Your task to perform on an android device: View the shopping cart on newegg. Image 0: 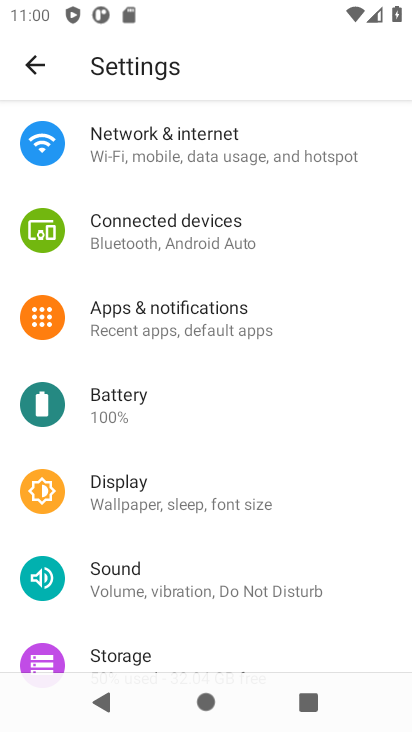
Step 0: press home button
Your task to perform on an android device: View the shopping cart on newegg. Image 1: 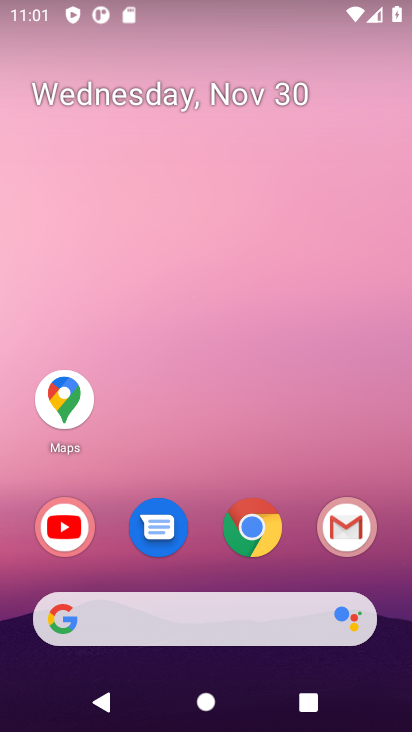
Step 1: click (262, 522)
Your task to perform on an android device: View the shopping cart on newegg. Image 2: 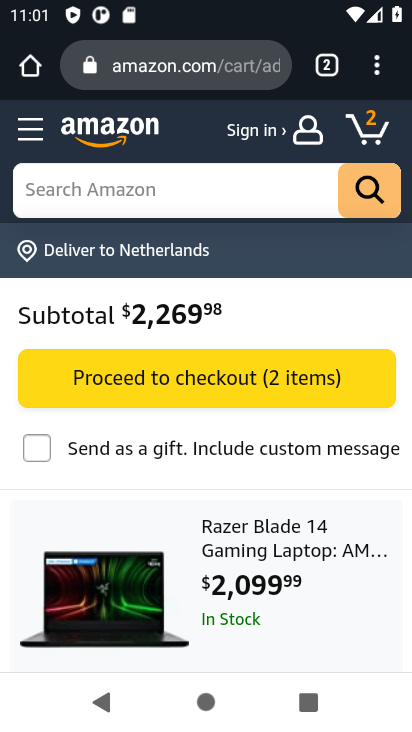
Step 2: click (188, 68)
Your task to perform on an android device: View the shopping cart on newegg. Image 3: 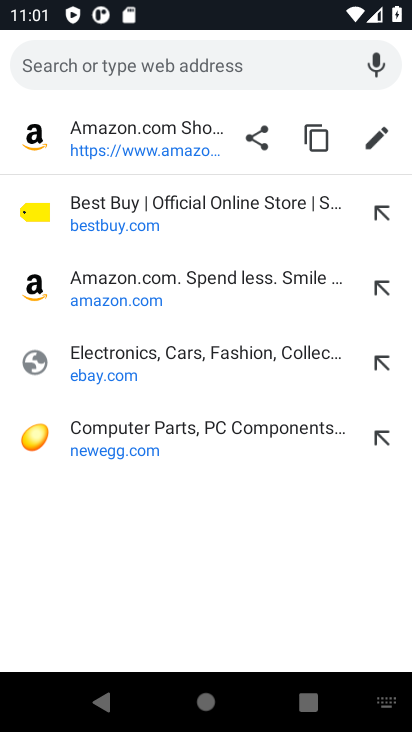
Step 3: click (101, 441)
Your task to perform on an android device: View the shopping cart on newegg. Image 4: 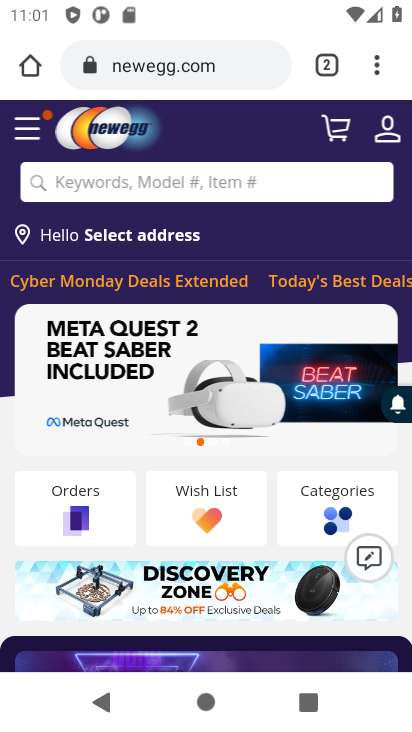
Step 4: click (333, 133)
Your task to perform on an android device: View the shopping cart on newegg. Image 5: 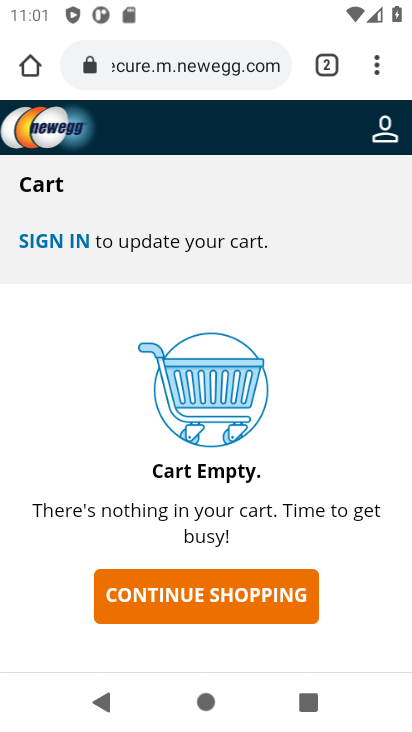
Step 5: task complete